Your task to perform on an android device: Open calendar and show me the third week of next month Image 0: 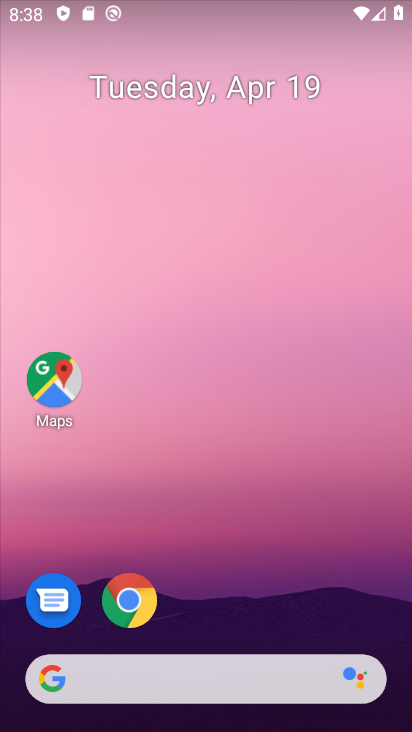
Step 0: click (278, 185)
Your task to perform on an android device: Open calendar and show me the third week of next month Image 1: 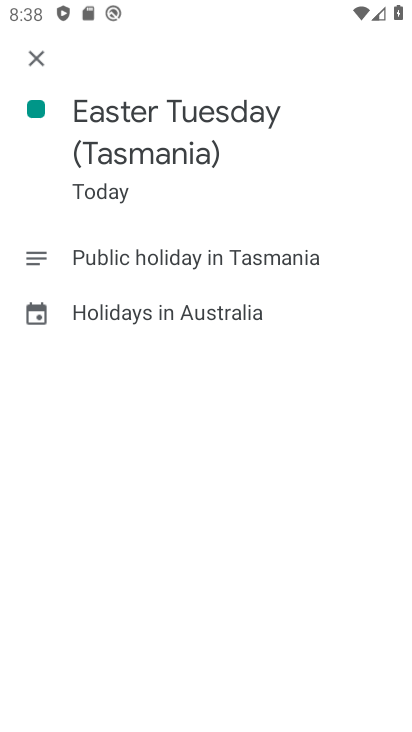
Step 1: press home button
Your task to perform on an android device: Open calendar and show me the third week of next month Image 2: 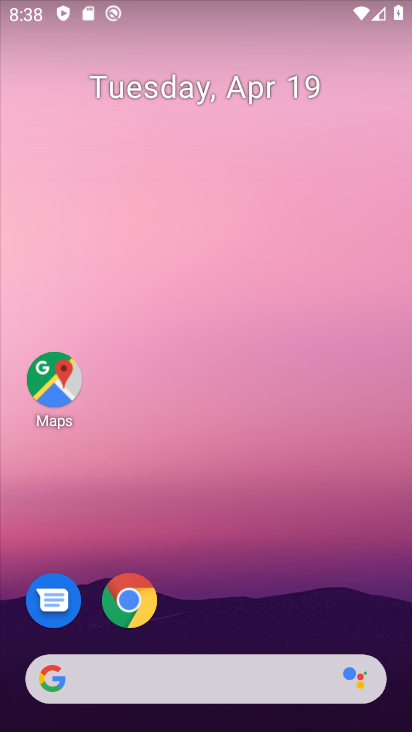
Step 2: drag from (252, 618) to (261, 108)
Your task to perform on an android device: Open calendar and show me the third week of next month Image 3: 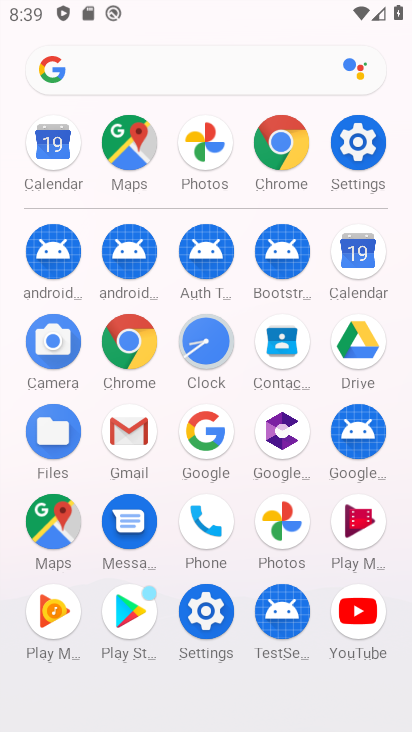
Step 3: click (63, 153)
Your task to perform on an android device: Open calendar and show me the third week of next month Image 4: 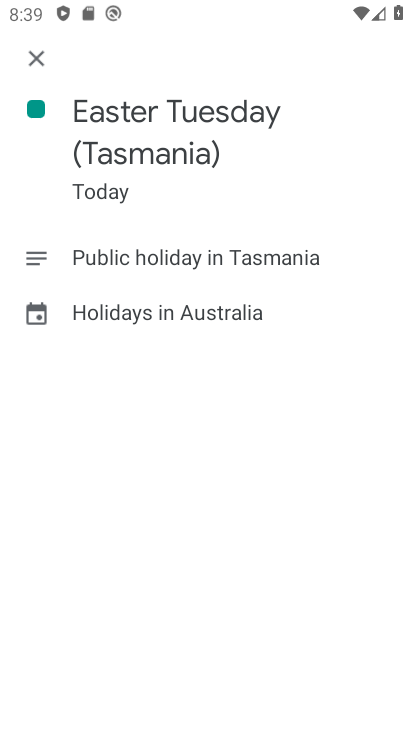
Step 4: click (31, 51)
Your task to perform on an android device: Open calendar and show me the third week of next month Image 5: 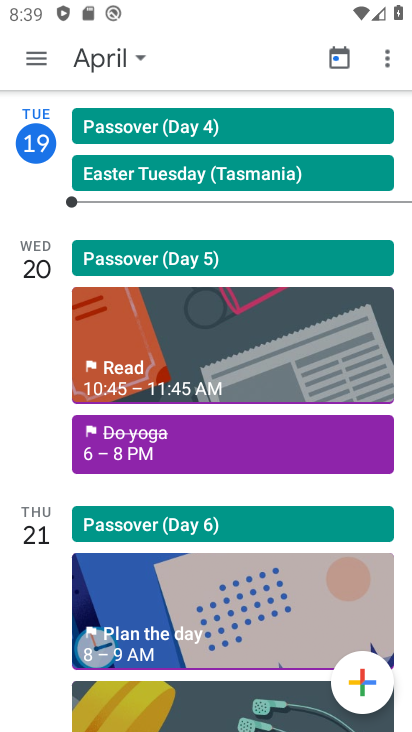
Step 5: click (119, 65)
Your task to perform on an android device: Open calendar and show me the third week of next month Image 6: 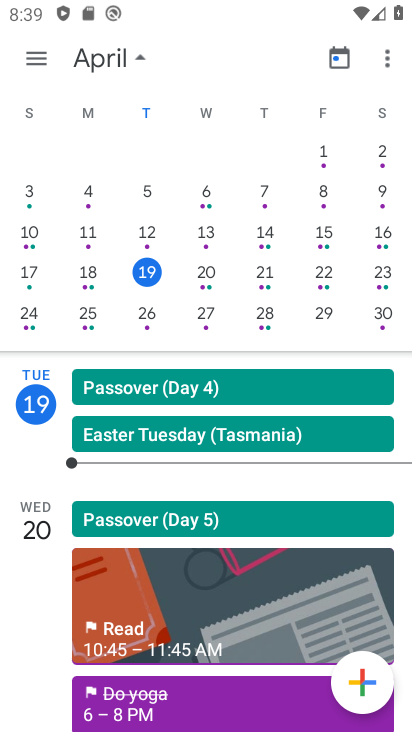
Step 6: drag from (363, 254) to (15, 217)
Your task to perform on an android device: Open calendar and show me the third week of next month Image 7: 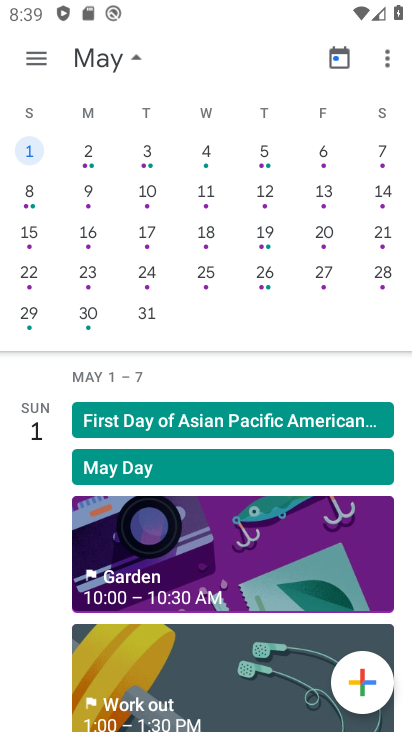
Step 7: click (276, 238)
Your task to perform on an android device: Open calendar and show me the third week of next month Image 8: 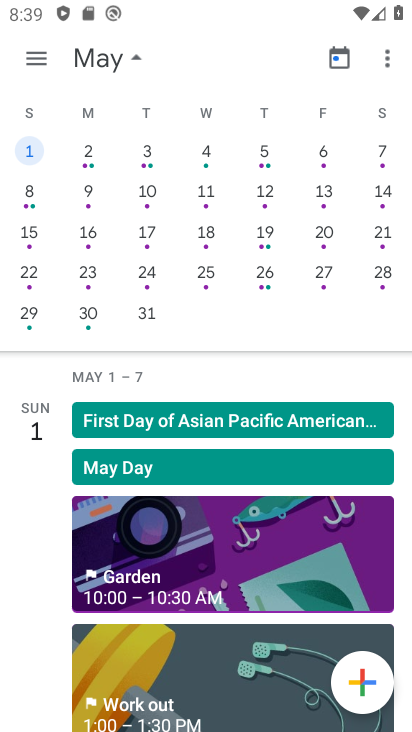
Step 8: click (262, 229)
Your task to perform on an android device: Open calendar and show me the third week of next month Image 9: 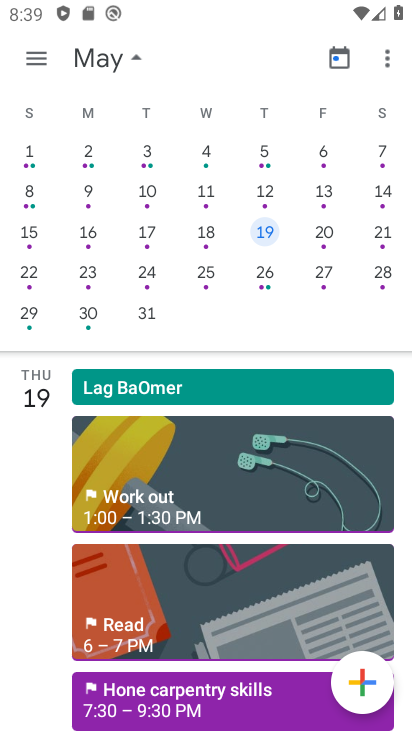
Step 9: task complete